Your task to perform on an android device: turn smart compose on in the gmail app Image 0: 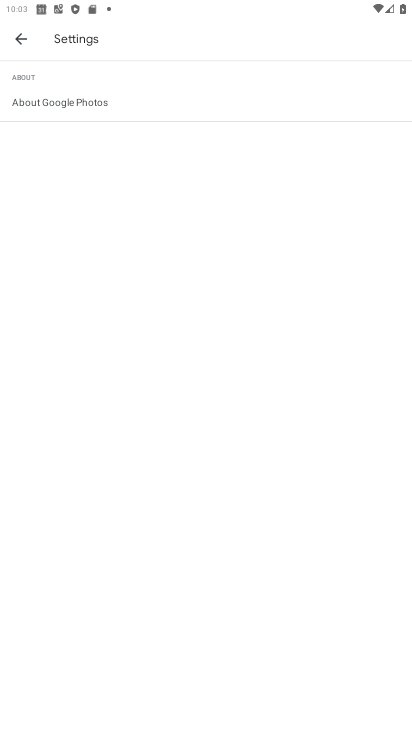
Step 0: press home button
Your task to perform on an android device: turn smart compose on in the gmail app Image 1: 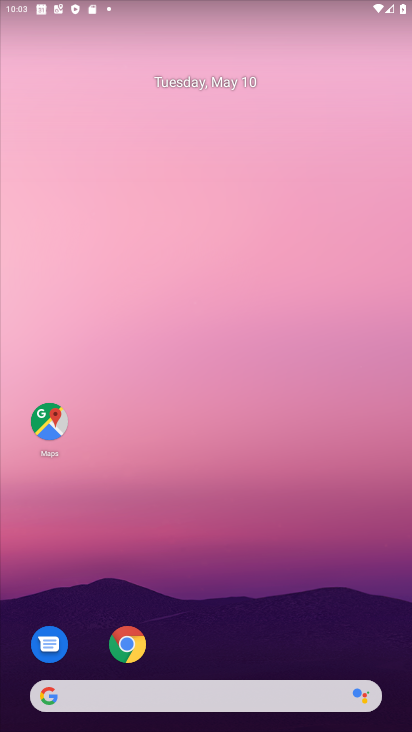
Step 1: drag from (190, 657) to (239, 223)
Your task to perform on an android device: turn smart compose on in the gmail app Image 2: 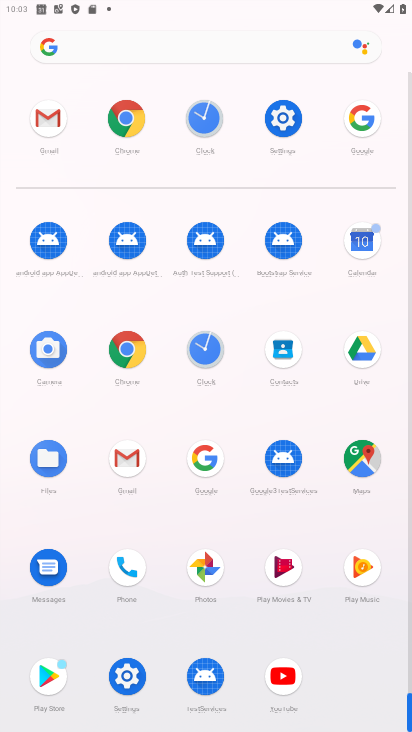
Step 2: click (126, 470)
Your task to perform on an android device: turn smart compose on in the gmail app Image 3: 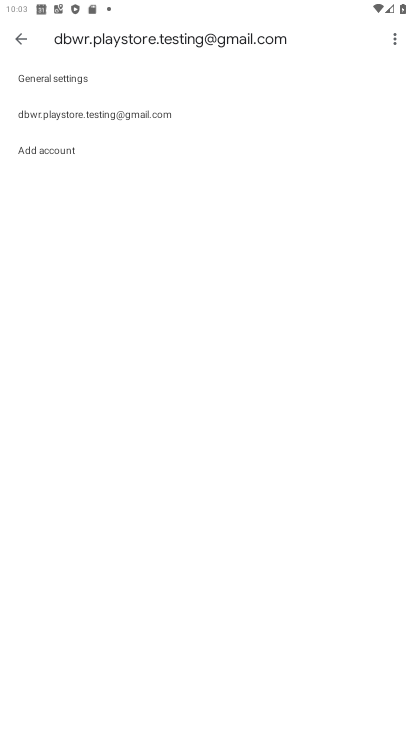
Step 3: click (101, 115)
Your task to perform on an android device: turn smart compose on in the gmail app Image 4: 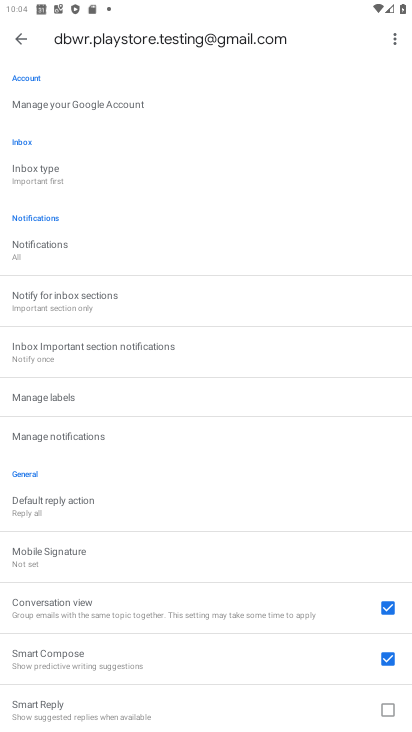
Step 4: task complete